Your task to perform on an android device: open wifi settings Image 0: 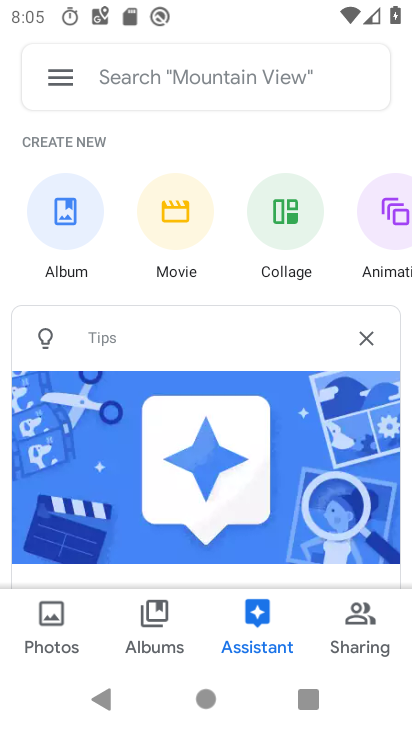
Step 0: press home button
Your task to perform on an android device: open wifi settings Image 1: 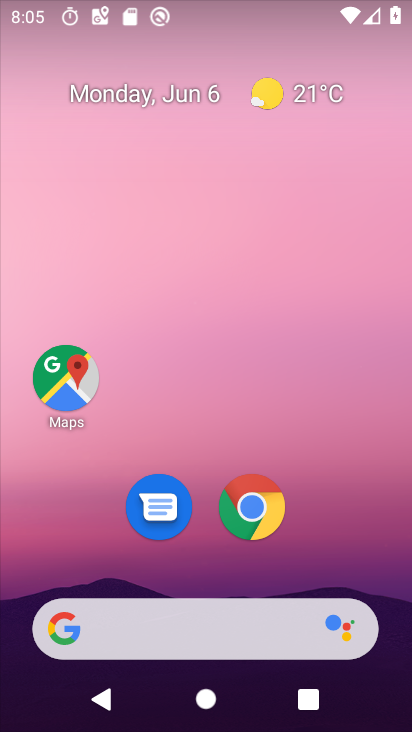
Step 1: drag from (355, 3) to (252, 697)
Your task to perform on an android device: open wifi settings Image 2: 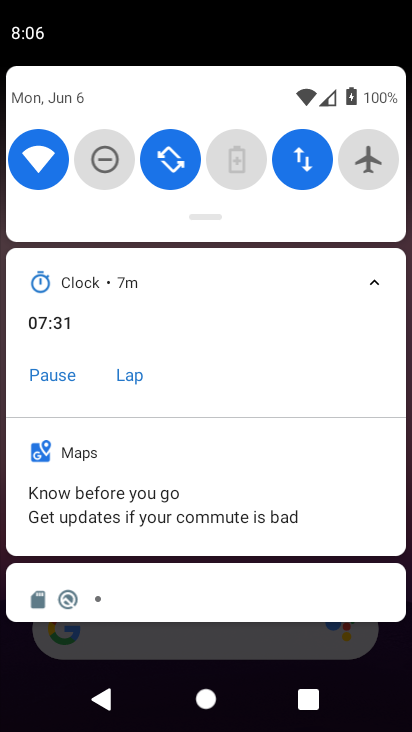
Step 2: click (41, 170)
Your task to perform on an android device: open wifi settings Image 3: 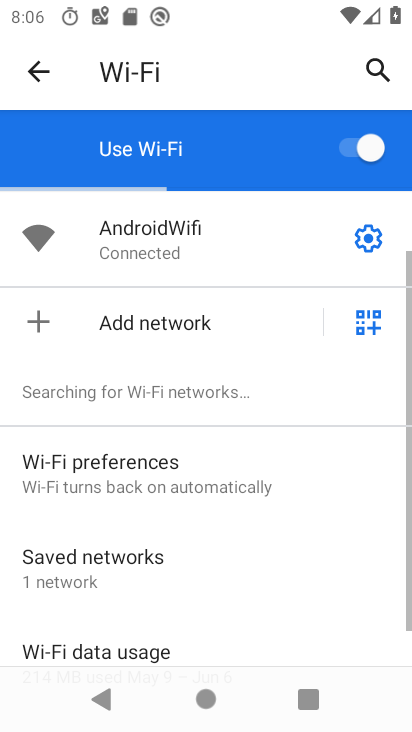
Step 3: task complete